Your task to perform on an android device: install app "AliExpress" Image 0: 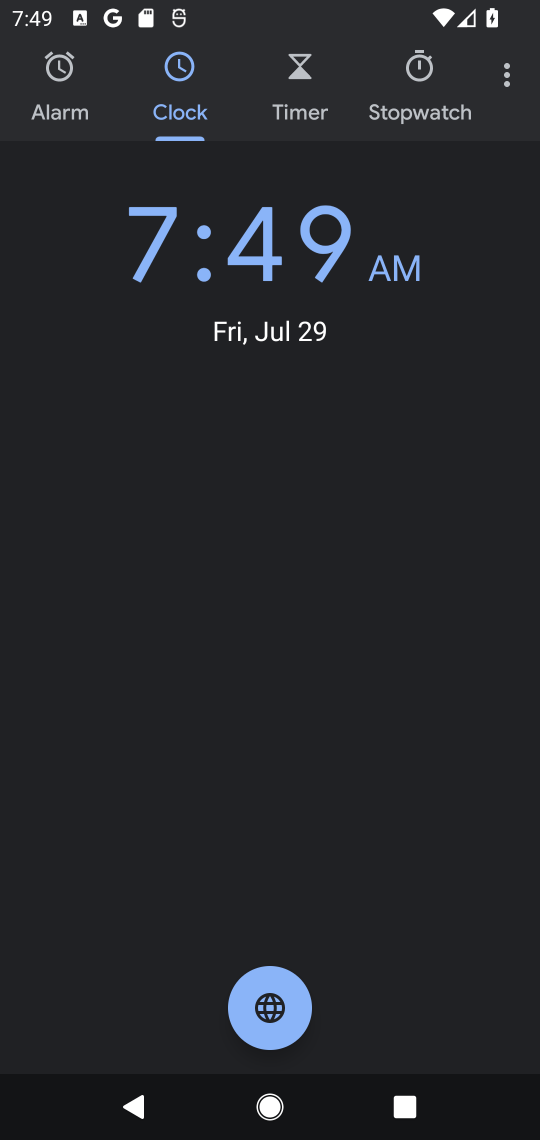
Step 0: press home button
Your task to perform on an android device: install app "AliExpress" Image 1: 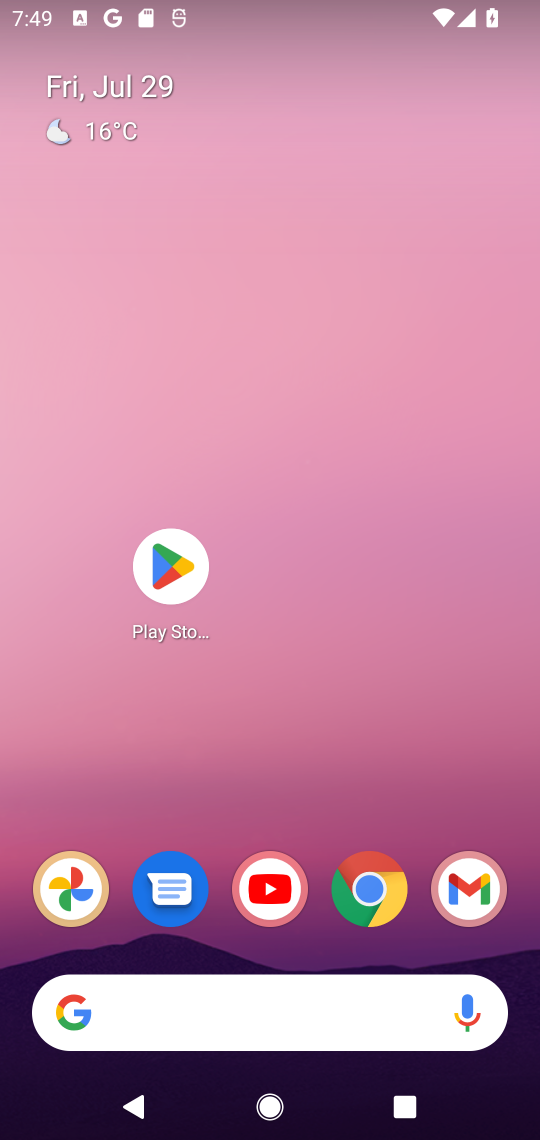
Step 1: click (169, 583)
Your task to perform on an android device: install app "AliExpress" Image 2: 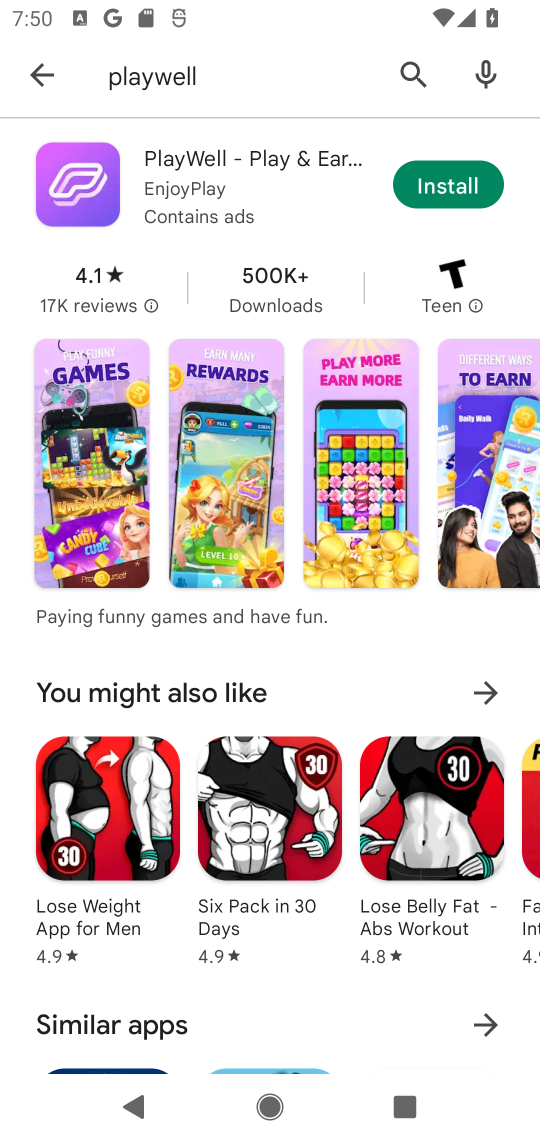
Step 2: click (419, 71)
Your task to perform on an android device: install app "AliExpress" Image 3: 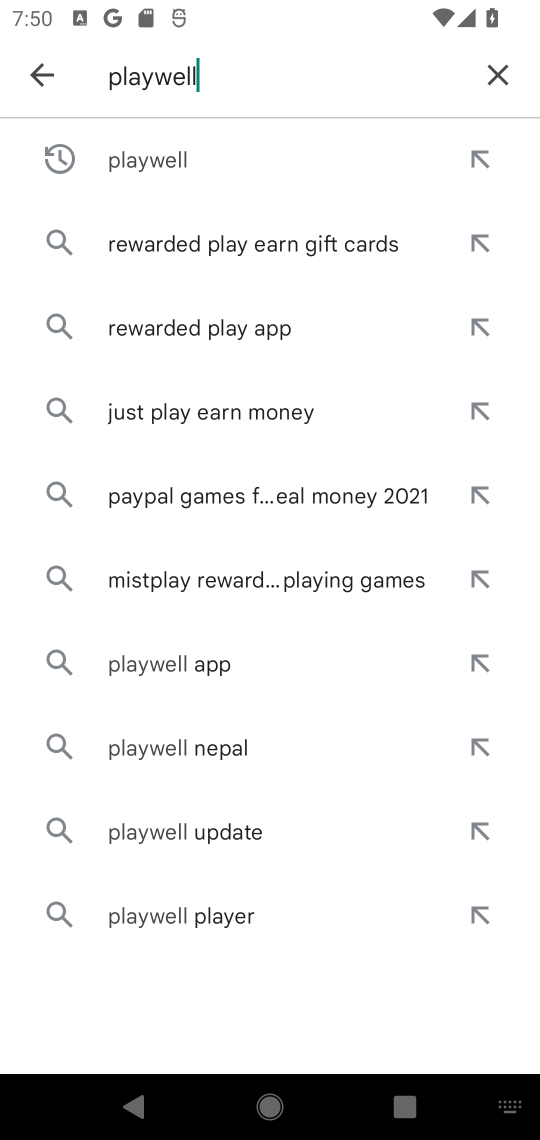
Step 3: click (494, 73)
Your task to perform on an android device: install app "AliExpress" Image 4: 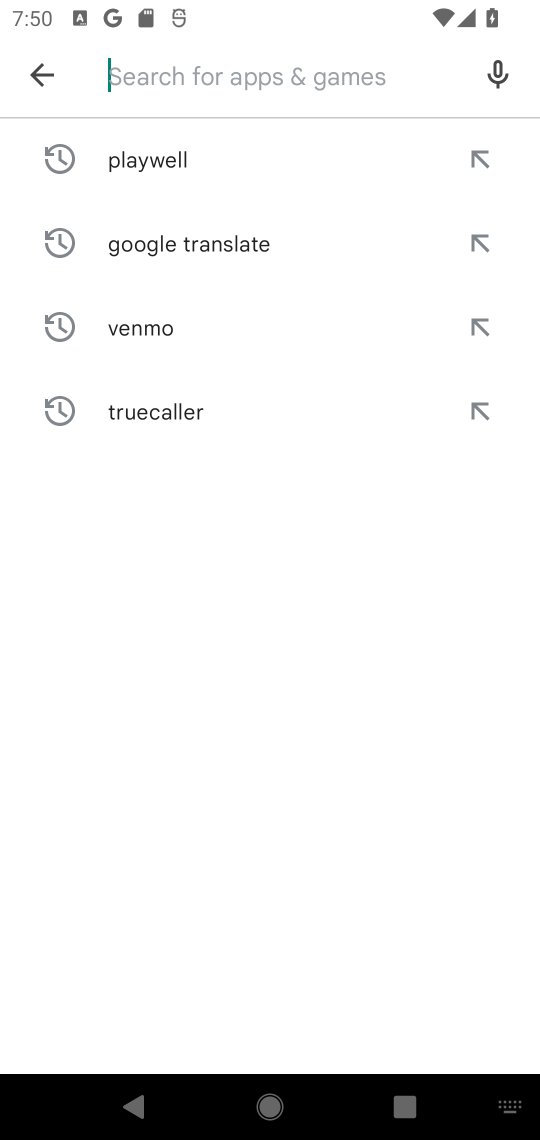
Step 4: type "AliExpress"
Your task to perform on an android device: install app "AliExpress" Image 5: 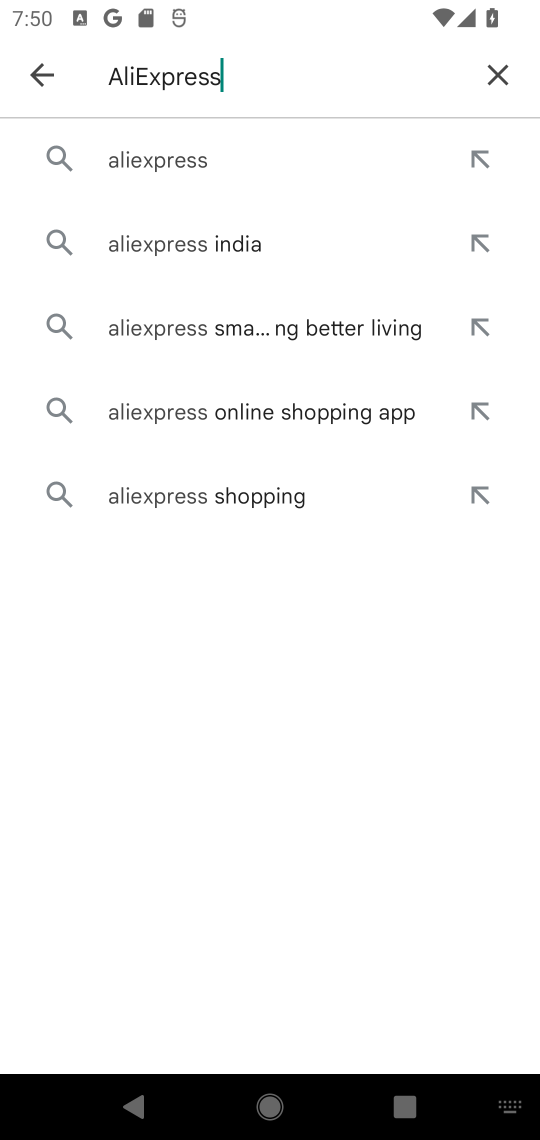
Step 5: click (120, 163)
Your task to perform on an android device: install app "AliExpress" Image 6: 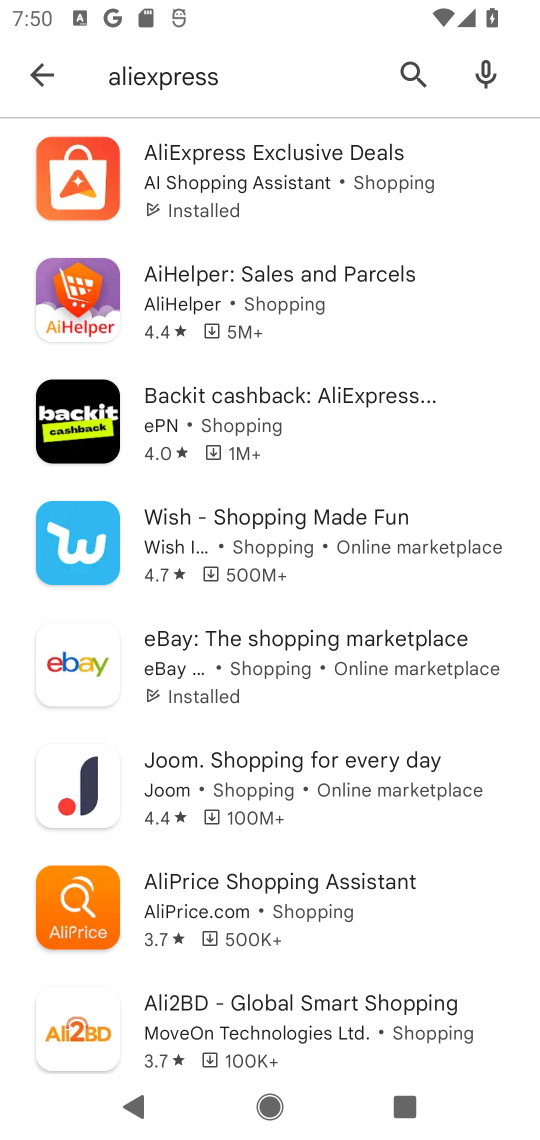
Step 6: click (301, 158)
Your task to perform on an android device: install app "AliExpress" Image 7: 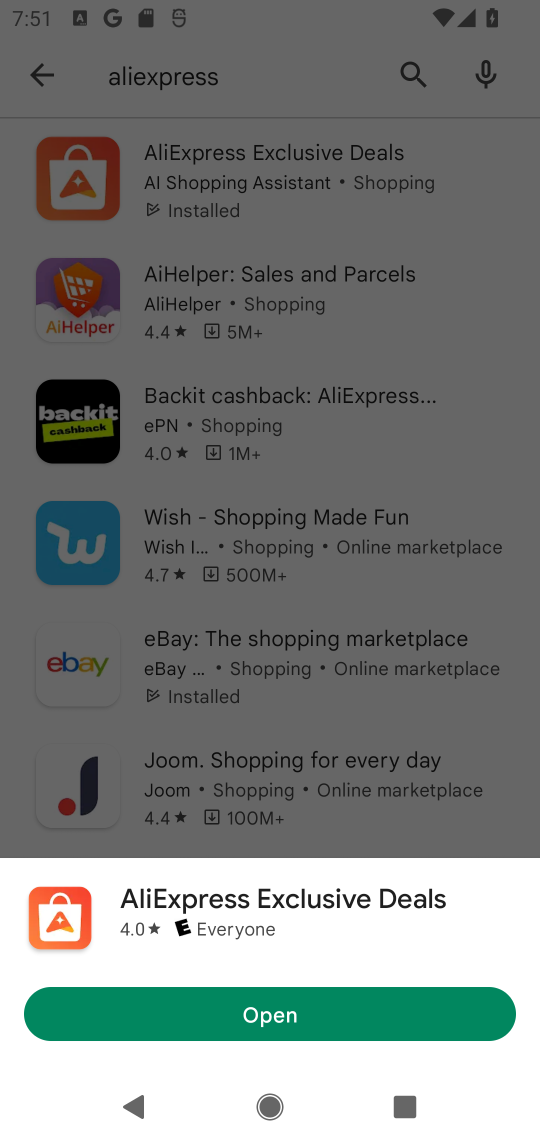
Step 7: task complete